Your task to perform on an android device: Open settings Image 0: 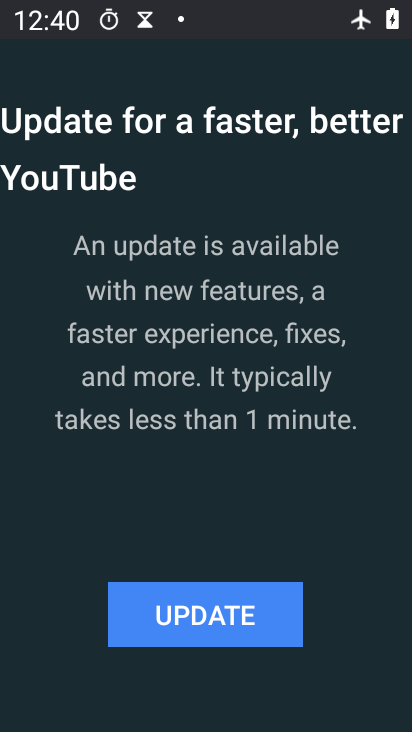
Step 0: drag from (268, 584) to (404, 481)
Your task to perform on an android device: Open settings Image 1: 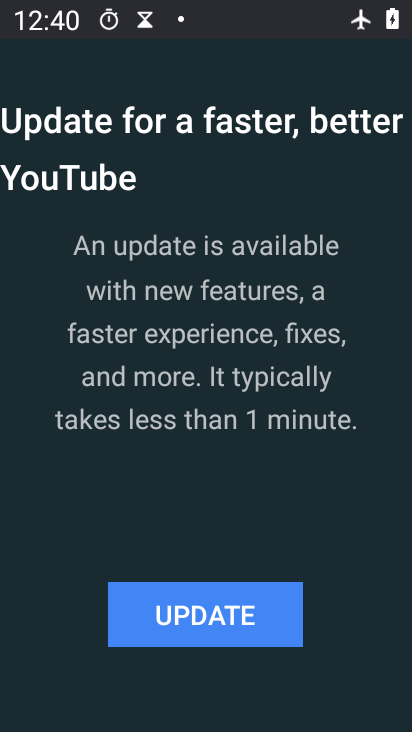
Step 1: press home button
Your task to perform on an android device: Open settings Image 2: 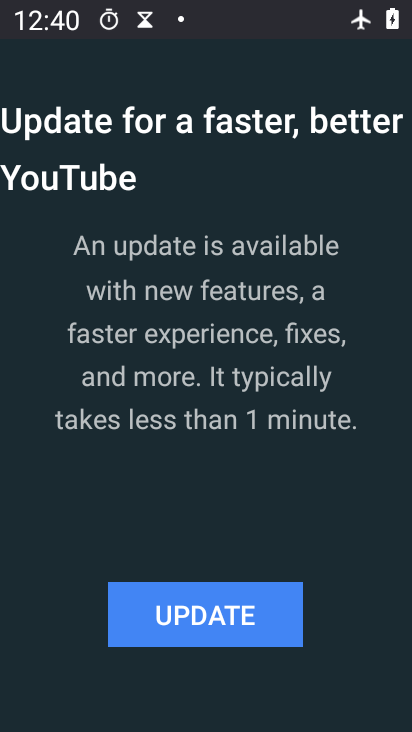
Step 2: drag from (404, 481) to (349, 567)
Your task to perform on an android device: Open settings Image 3: 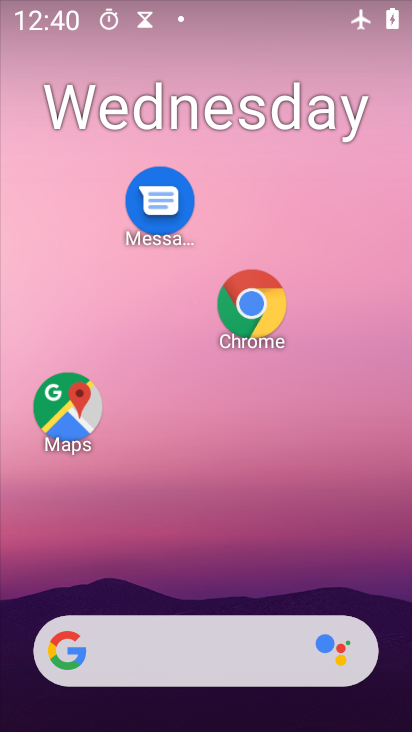
Step 3: drag from (298, 616) to (314, 132)
Your task to perform on an android device: Open settings Image 4: 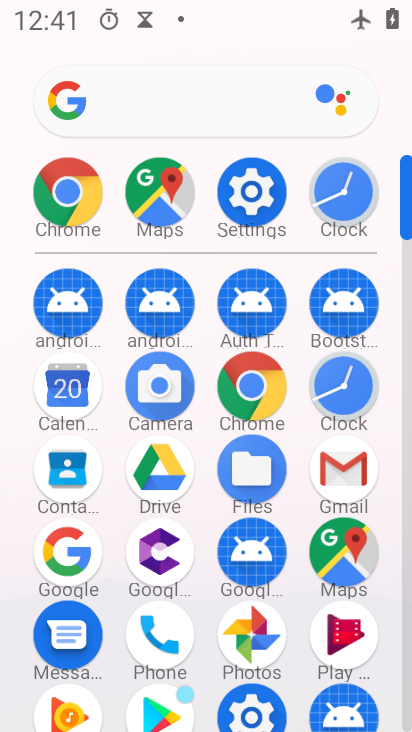
Step 4: click (235, 203)
Your task to perform on an android device: Open settings Image 5: 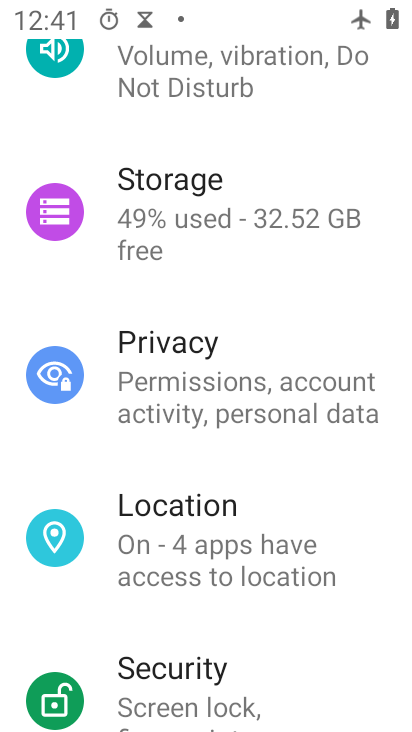
Step 5: drag from (266, 638) to (281, 146)
Your task to perform on an android device: Open settings Image 6: 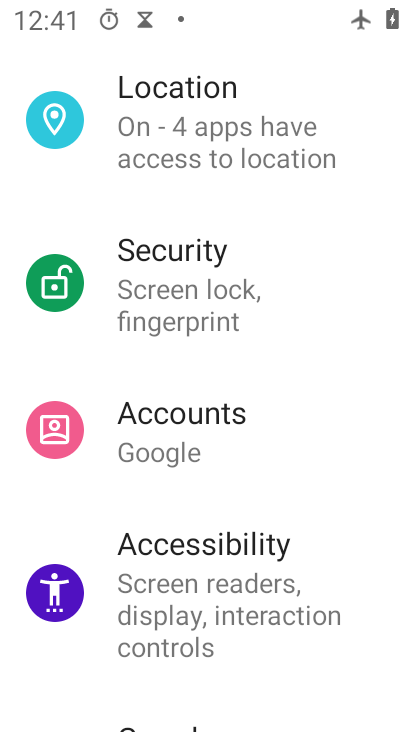
Step 6: click (292, 526)
Your task to perform on an android device: Open settings Image 7: 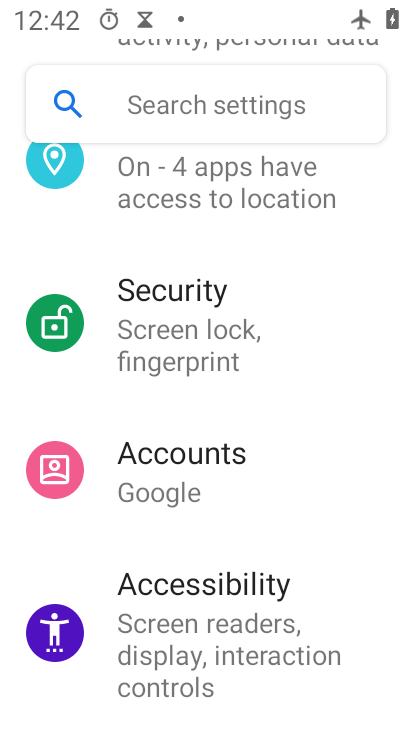
Step 7: task complete